Your task to perform on an android device: turn off notifications settings in the gmail app Image 0: 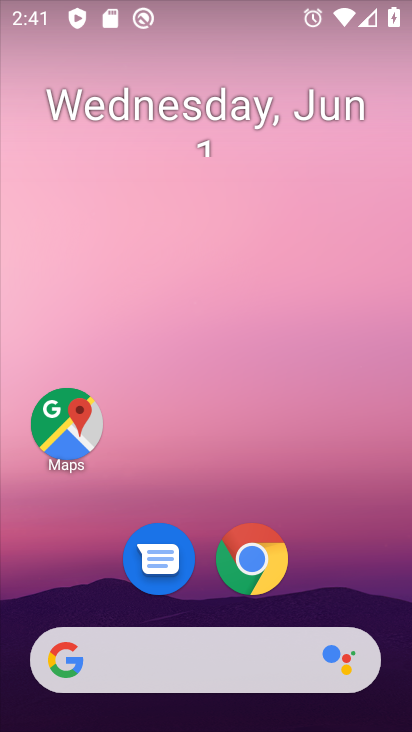
Step 0: drag from (351, 591) to (330, 1)
Your task to perform on an android device: turn off notifications settings in the gmail app Image 1: 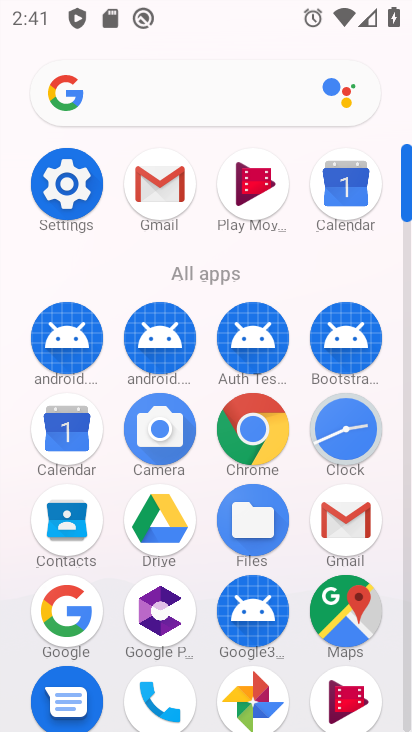
Step 1: click (345, 528)
Your task to perform on an android device: turn off notifications settings in the gmail app Image 2: 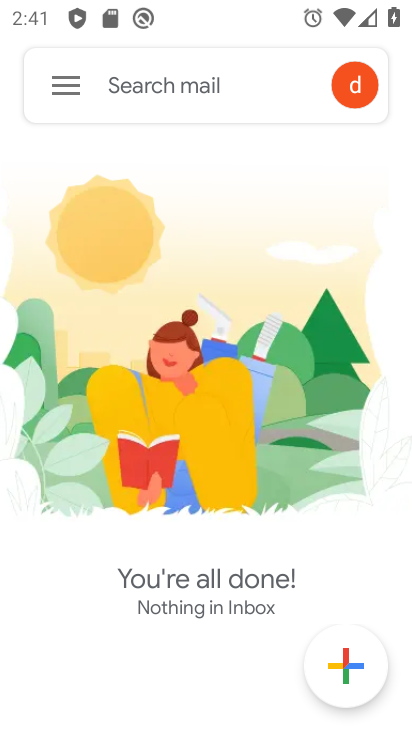
Step 2: click (59, 86)
Your task to perform on an android device: turn off notifications settings in the gmail app Image 3: 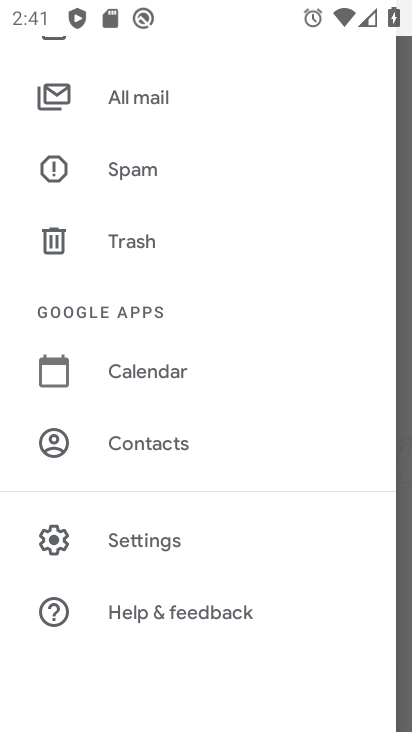
Step 3: click (143, 533)
Your task to perform on an android device: turn off notifications settings in the gmail app Image 4: 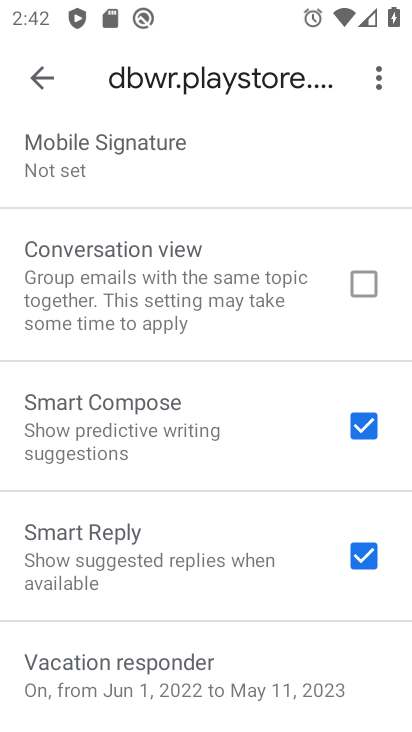
Step 4: drag from (178, 356) to (179, 685)
Your task to perform on an android device: turn off notifications settings in the gmail app Image 5: 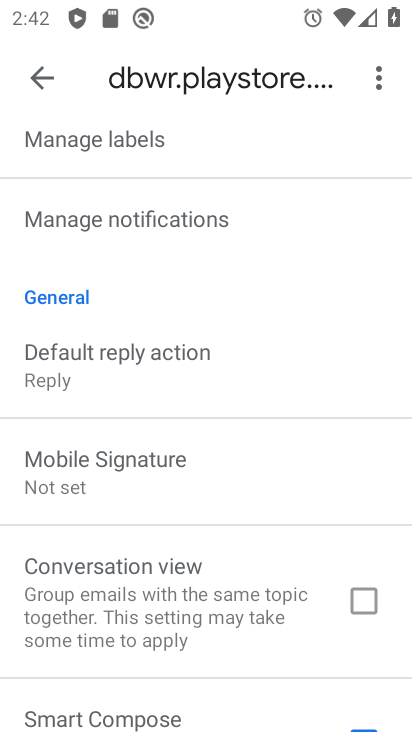
Step 5: click (92, 214)
Your task to perform on an android device: turn off notifications settings in the gmail app Image 6: 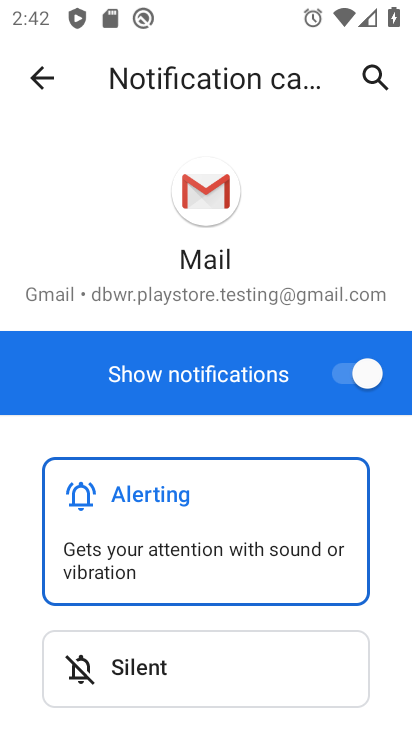
Step 6: click (334, 375)
Your task to perform on an android device: turn off notifications settings in the gmail app Image 7: 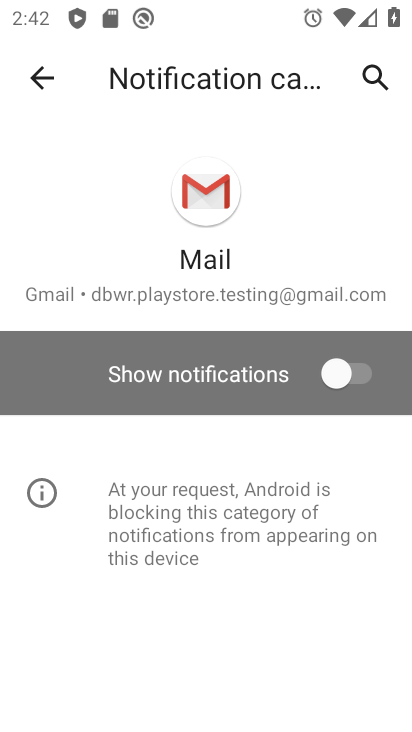
Step 7: task complete